Your task to perform on an android device: Open the calculator Image 0: 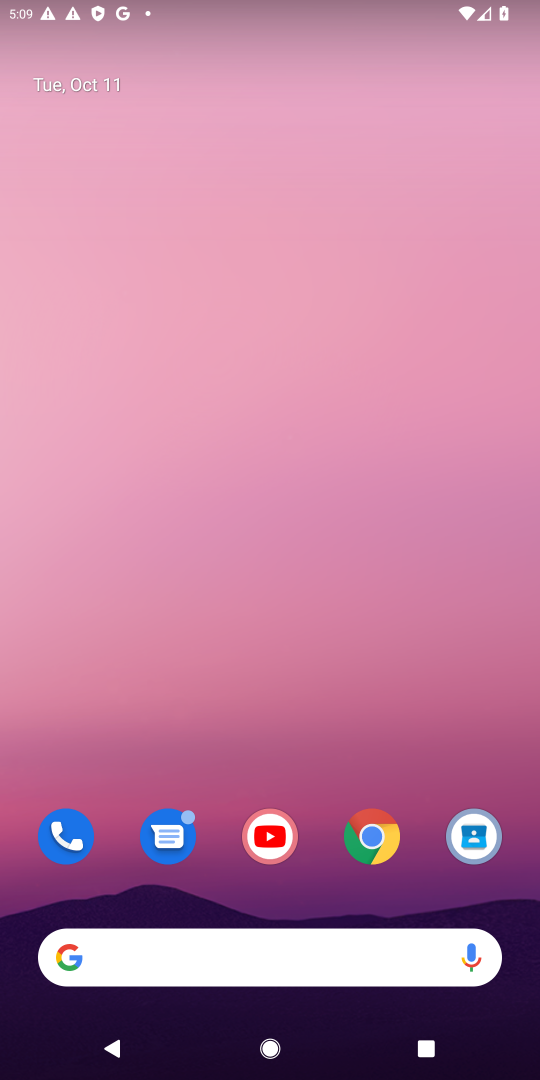
Step 0: drag from (336, 924) to (425, 105)
Your task to perform on an android device: Open the calculator Image 1: 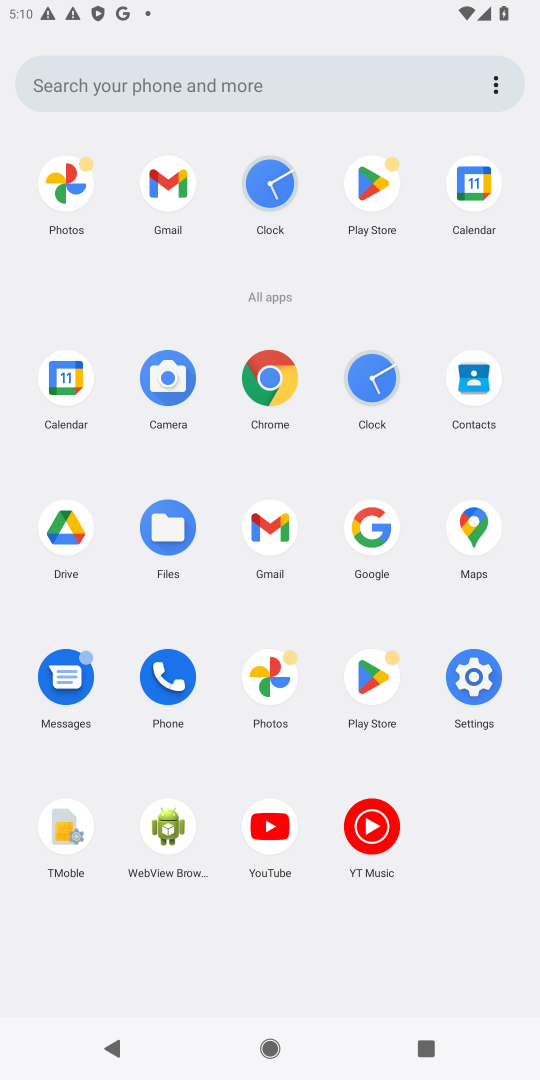
Step 1: task complete